Your task to perform on an android device: Play the last video I watched on Youtube Image 0: 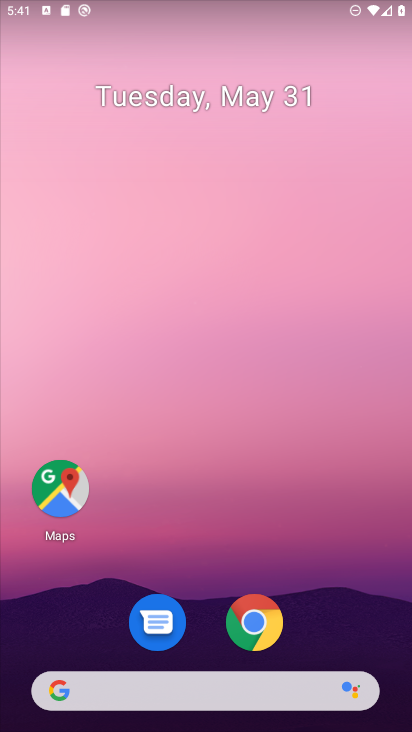
Step 0: drag from (305, 457) to (299, 94)
Your task to perform on an android device: Play the last video I watched on Youtube Image 1: 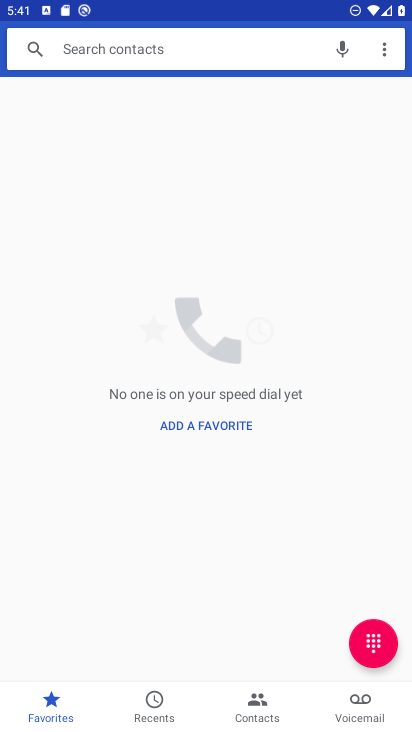
Step 1: press home button
Your task to perform on an android device: Play the last video I watched on Youtube Image 2: 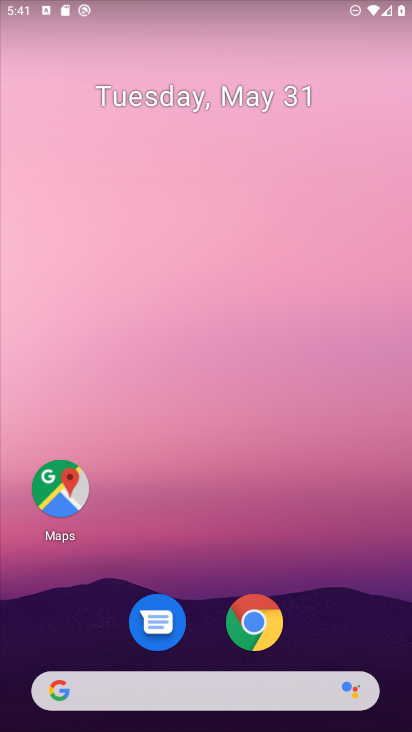
Step 2: drag from (287, 706) to (277, 106)
Your task to perform on an android device: Play the last video I watched on Youtube Image 3: 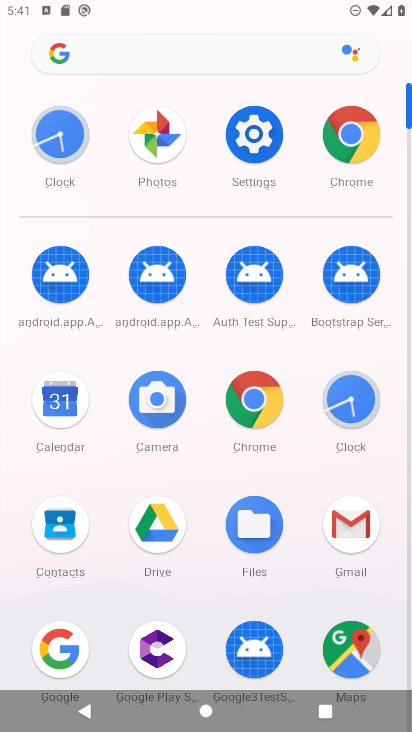
Step 3: drag from (325, 616) to (296, 204)
Your task to perform on an android device: Play the last video I watched on Youtube Image 4: 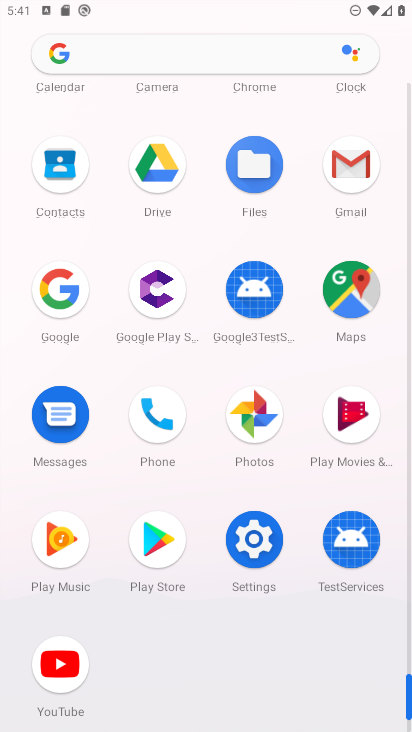
Step 4: click (36, 672)
Your task to perform on an android device: Play the last video I watched on Youtube Image 5: 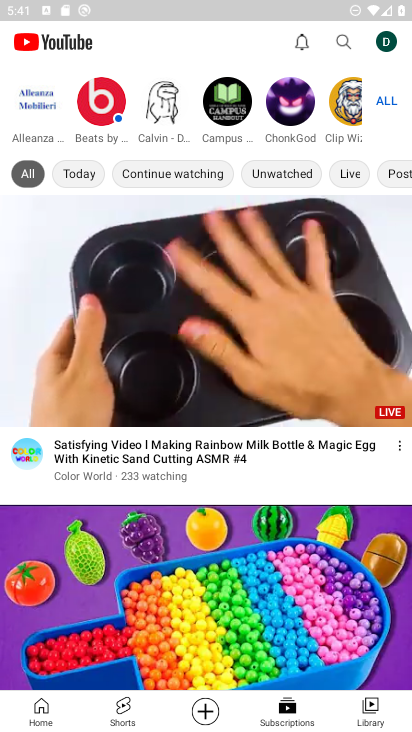
Step 5: click (371, 706)
Your task to perform on an android device: Play the last video I watched on Youtube Image 6: 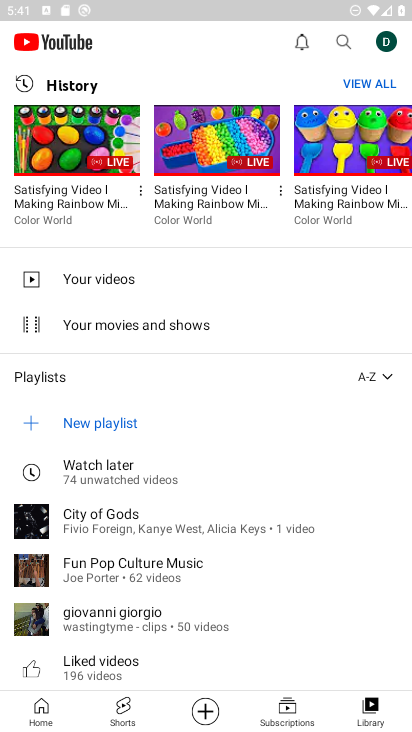
Step 6: click (105, 168)
Your task to perform on an android device: Play the last video I watched on Youtube Image 7: 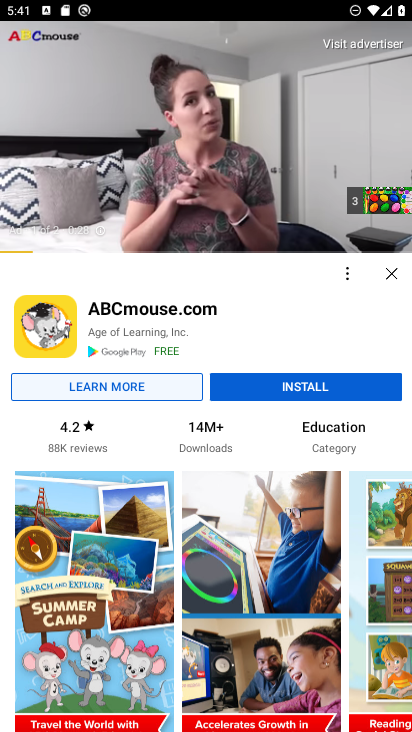
Step 7: task complete